Your task to perform on an android device: Check the news Image 0: 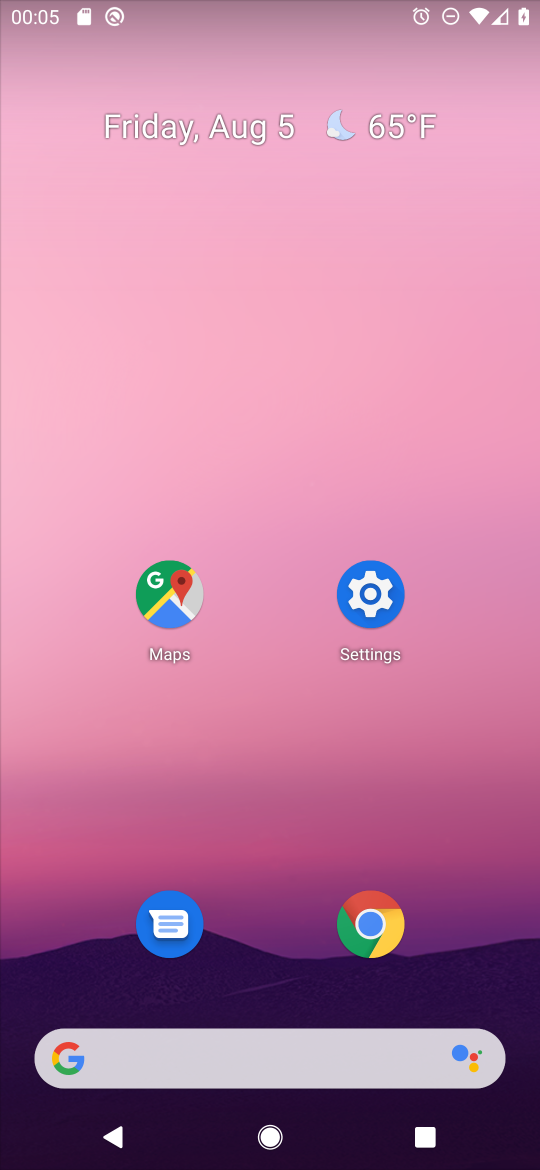
Step 0: press home button
Your task to perform on an android device: Check the news Image 1: 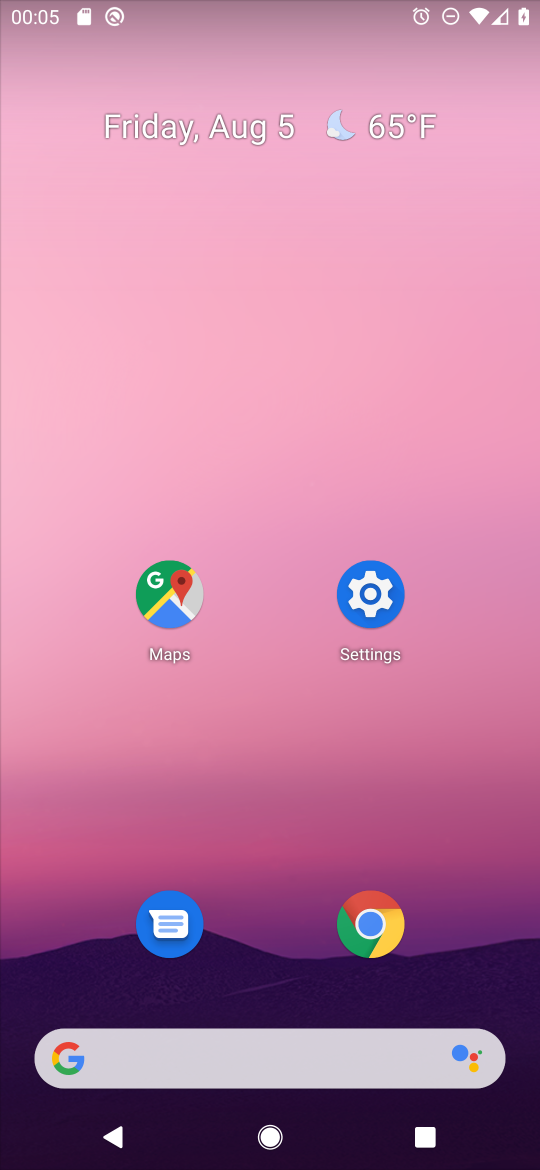
Step 1: click (196, 1077)
Your task to perform on an android device: Check the news Image 2: 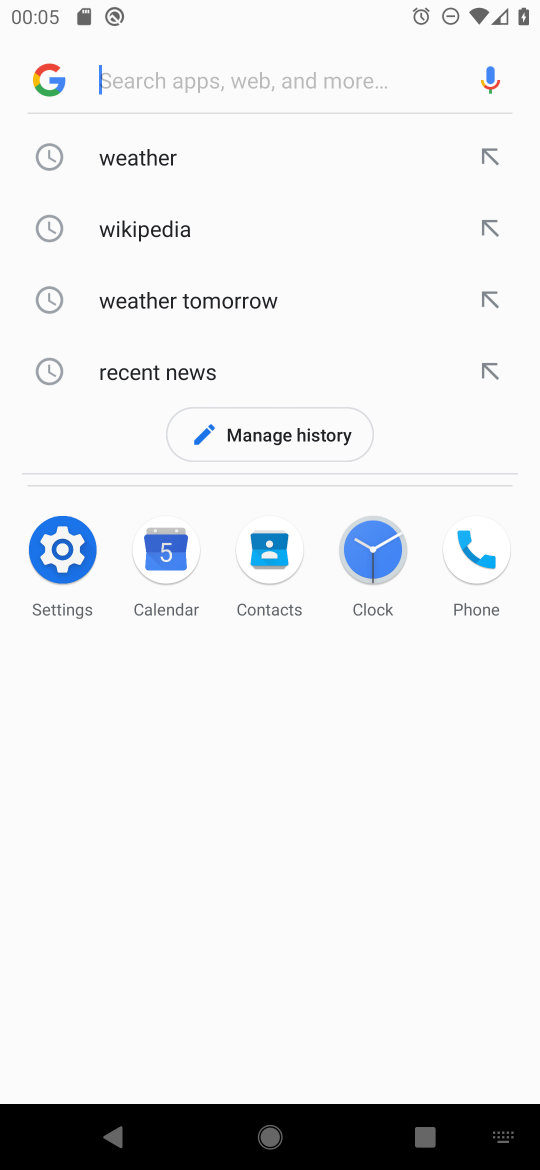
Step 2: click (140, 375)
Your task to perform on an android device: Check the news Image 3: 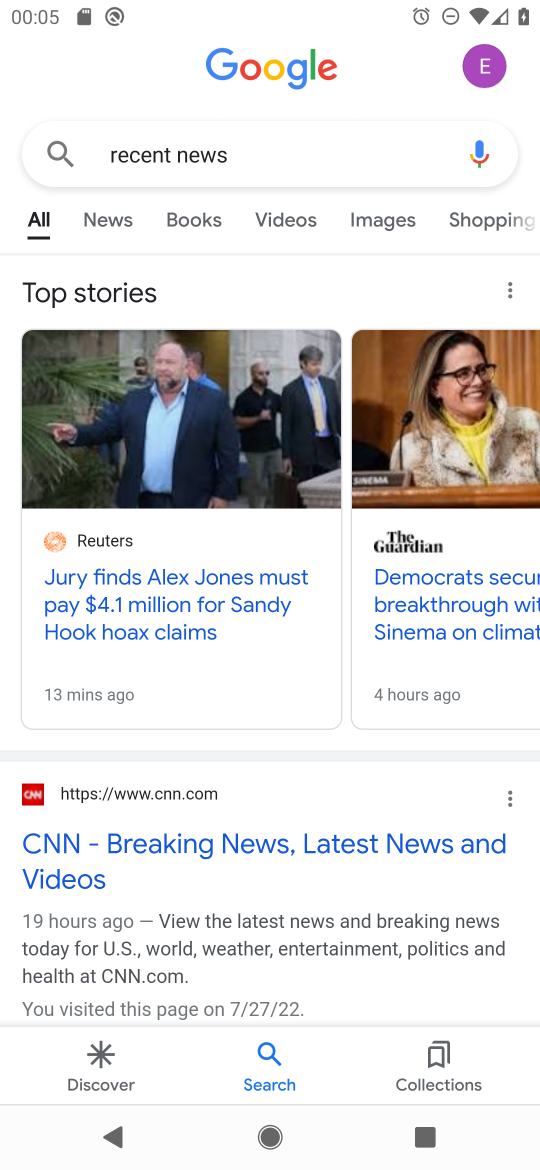
Step 3: click (99, 217)
Your task to perform on an android device: Check the news Image 4: 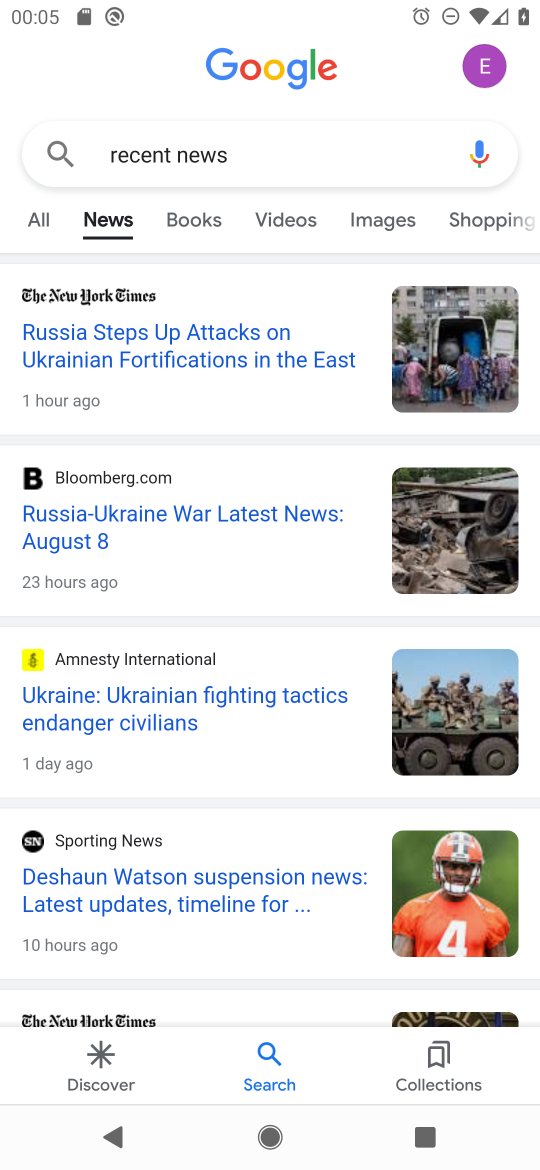
Step 4: task complete